Your task to perform on an android device: When is my next appointment? Image 0: 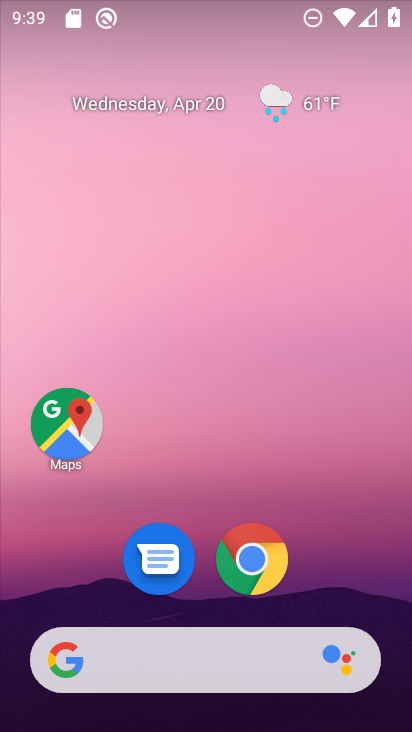
Step 0: drag from (393, 640) to (360, 179)
Your task to perform on an android device: When is my next appointment? Image 1: 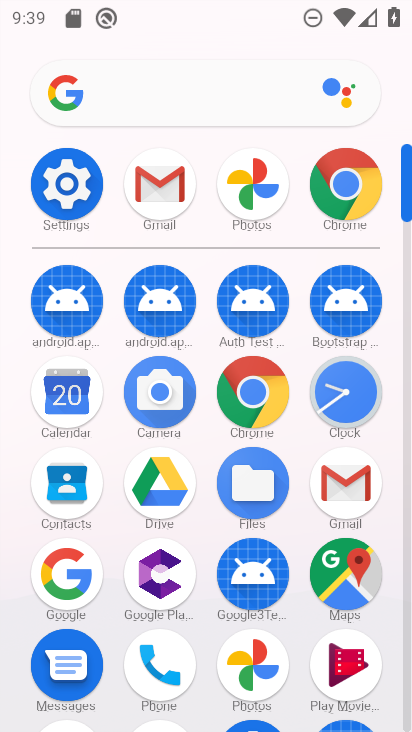
Step 1: click (408, 705)
Your task to perform on an android device: When is my next appointment? Image 2: 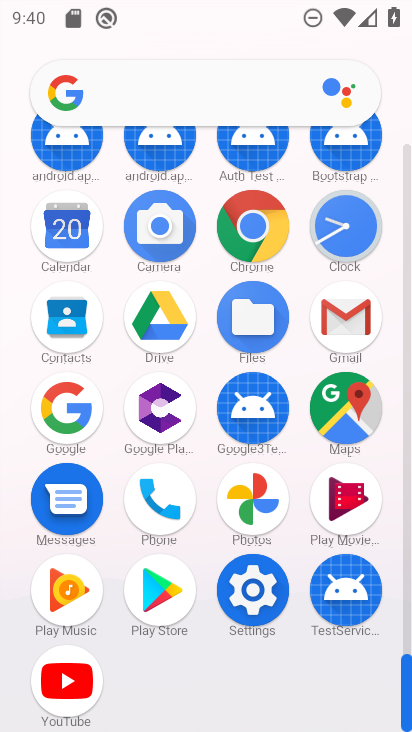
Step 2: click (63, 224)
Your task to perform on an android device: When is my next appointment? Image 3: 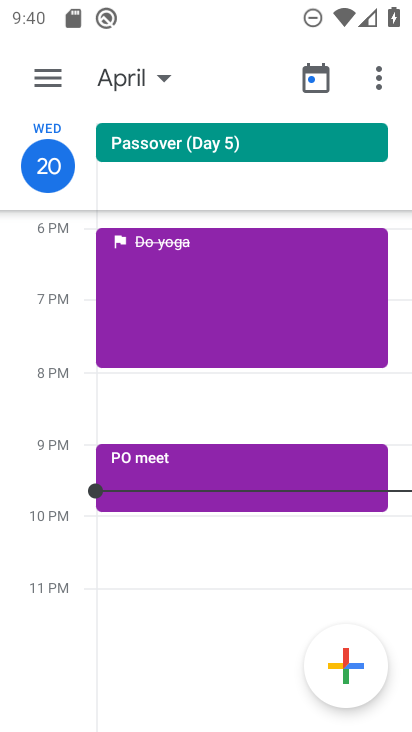
Step 3: click (42, 78)
Your task to perform on an android device: When is my next appointment? Image 4: 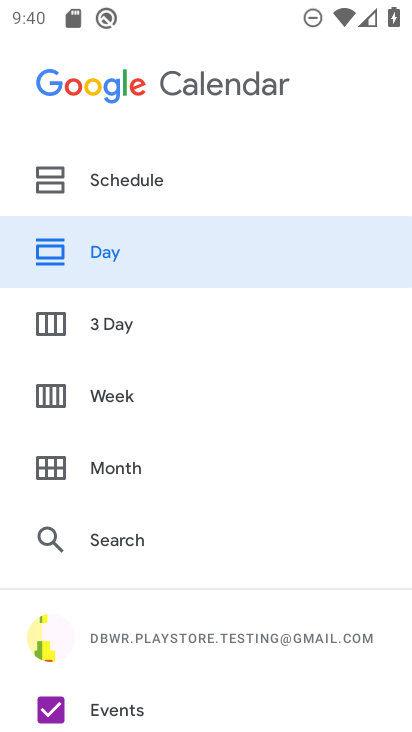
Step 4: click (104, 172)
Your task to perform on an android device: When is my next appointment? Image 5: 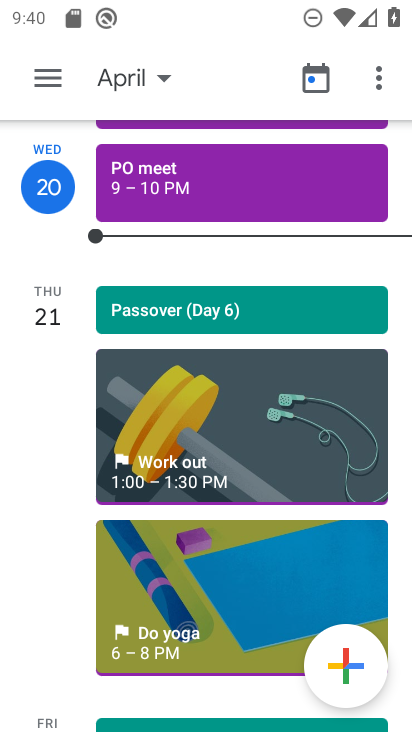
Step 5: task complete